Your task to perform on an android device: Show me the alarms in the clock app Image 0: 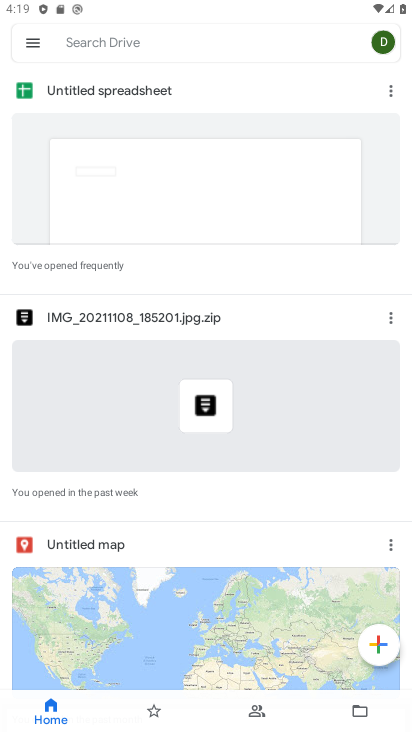
Step 0: press back button
Your task to perform on an android device: Show me the alarms in the clock app Image 1: 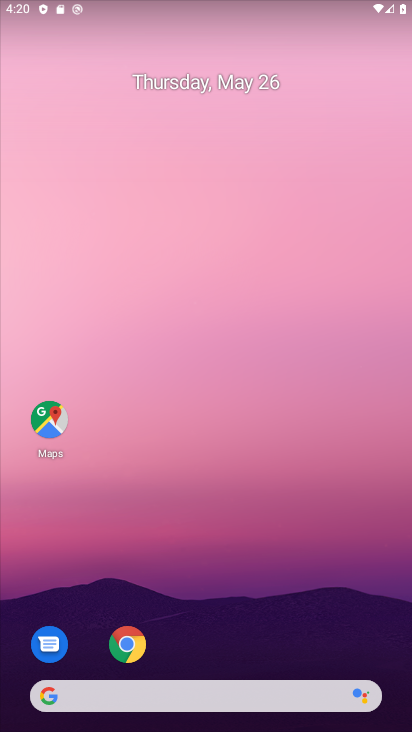
Step 1: drag from (192, 569) to (183, 1)
Your task to perform on an android device: Show me the alarms in the clock app Image 2: 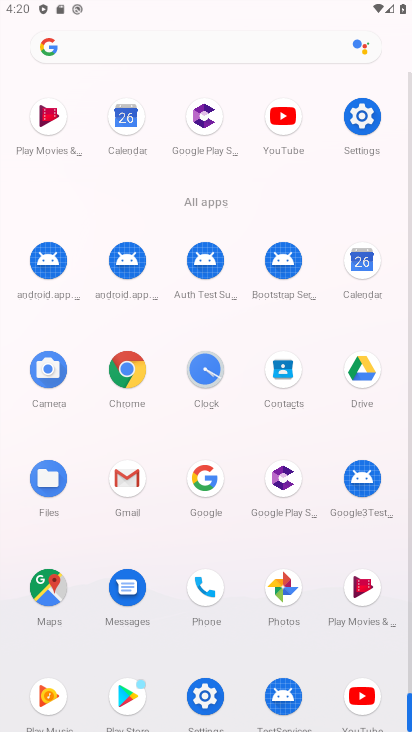
Step 2: click (205, 369)
Your task to perform on an android device: Show me the alarms in the clock app Image 3: 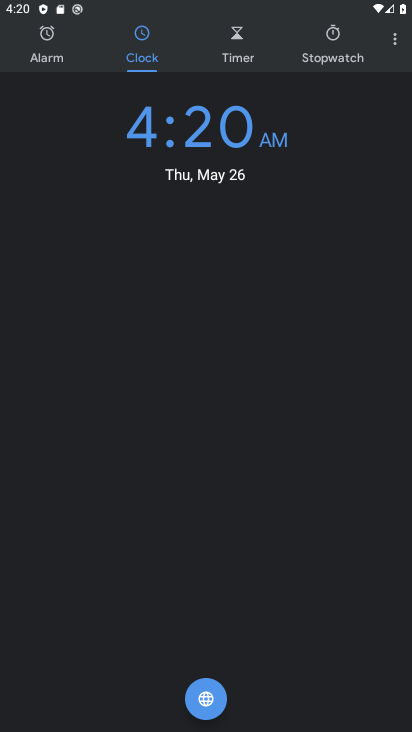
Step 3: click (56, 48)
Your task to perform on an android device: Show me the alarms in the clock app Image 4: 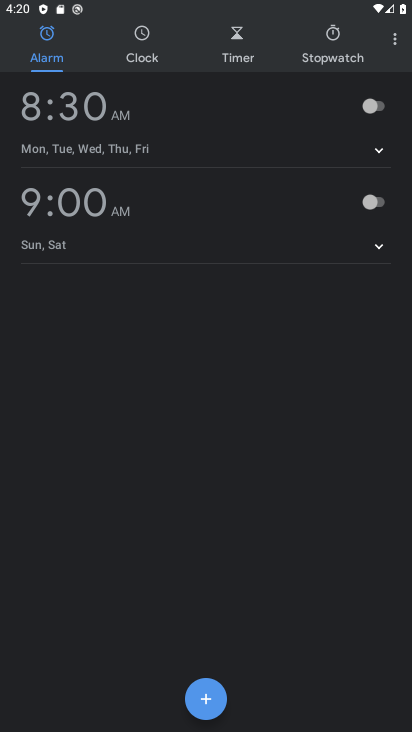
Step 4: task complete